Your task to perform on an android device: Go to Yahoo.com Image 0: 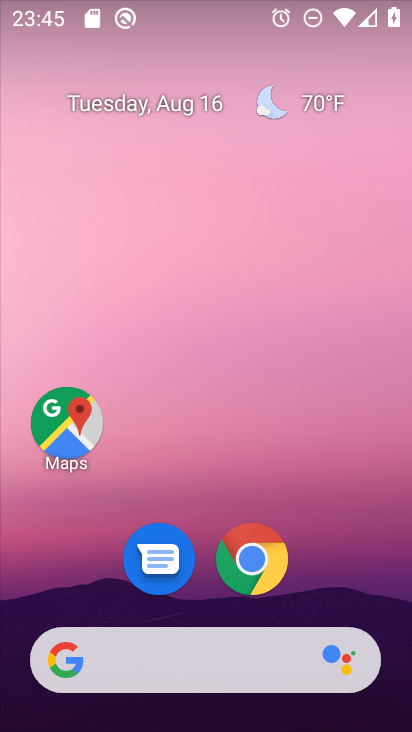
Step 0: click (254, 561)
Your task to perform on an android device: Go to Yahoo.com Image 1: 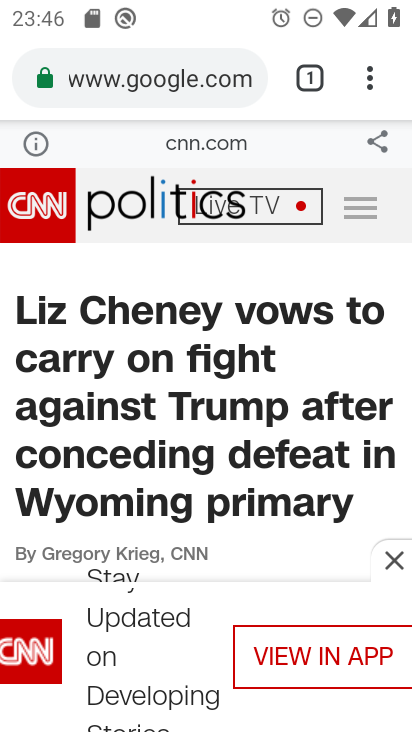
Step 1: click (251, 89)
Your task to perform on an android device: Go to Yahoo.com Image 2: 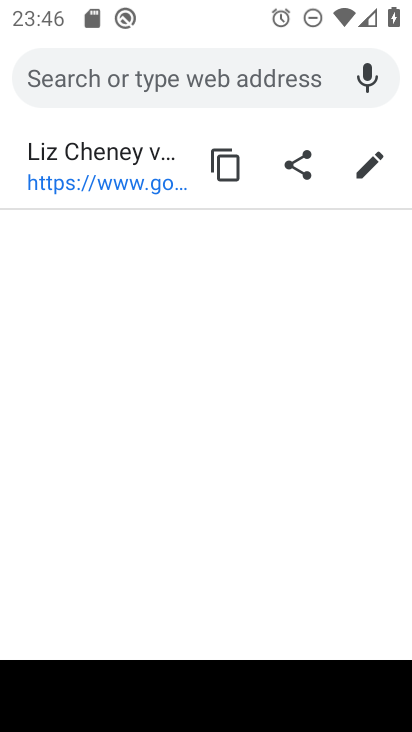
Step 2: type "Yahoo.com"
Your task to perform on an android device: Go to Yahoo.com Image 3: 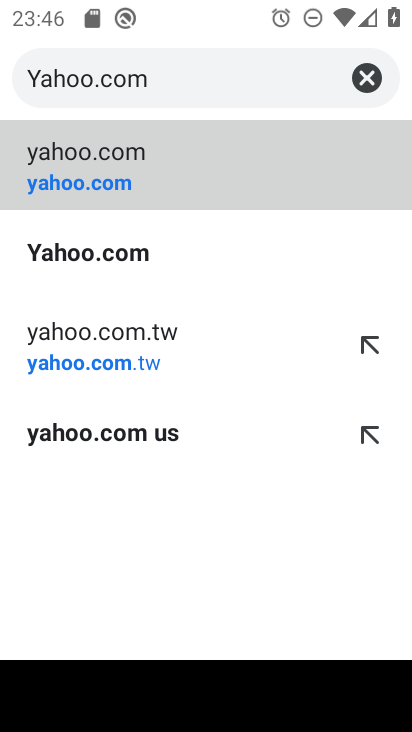
Step 3: click (100, 264)
Your task to perform on an android device: Go to Yahoo.com Image 4: 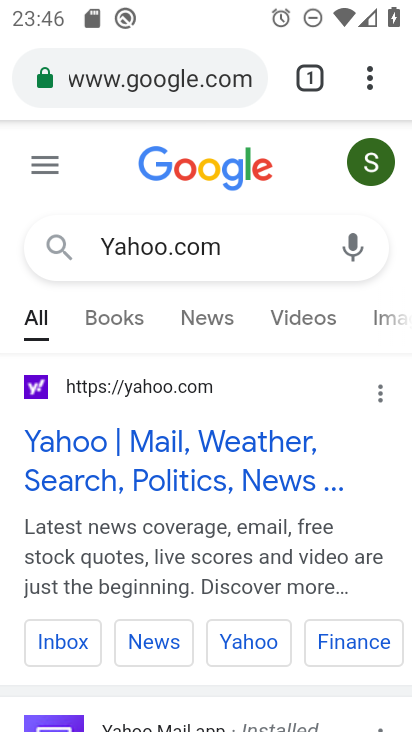
Step 4: click (164, 391)
Your task to perform on an android device: Go to Yahoo.com Image 5: 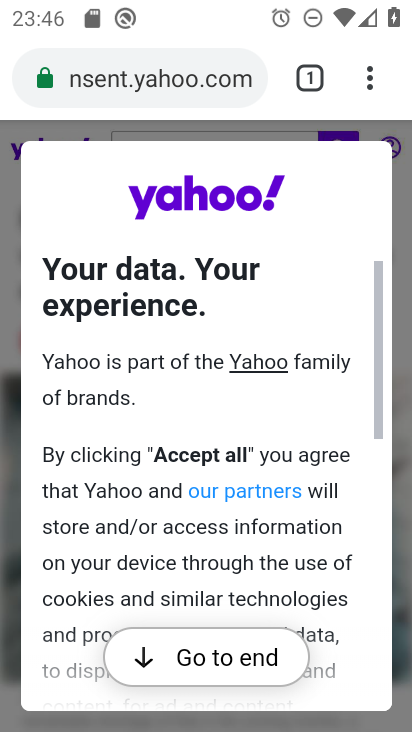
Step 5: click (205, 642)
Your task to perform on an android device: Go to Yahoo.com Image 6: 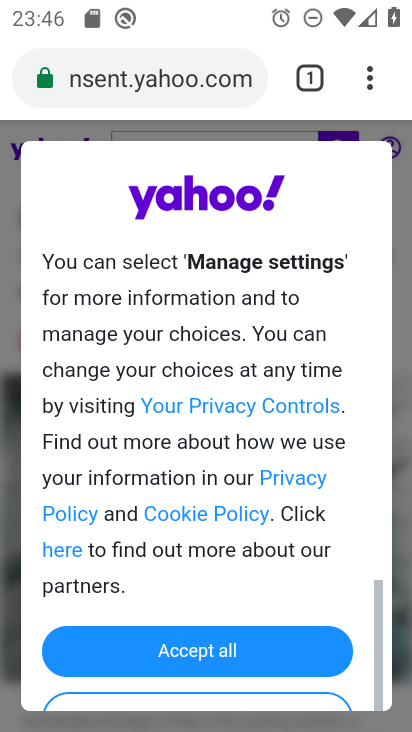
Step 6: click (205, 651)
Your task to perform on an android device: Go to Yahoo.com Image 7: 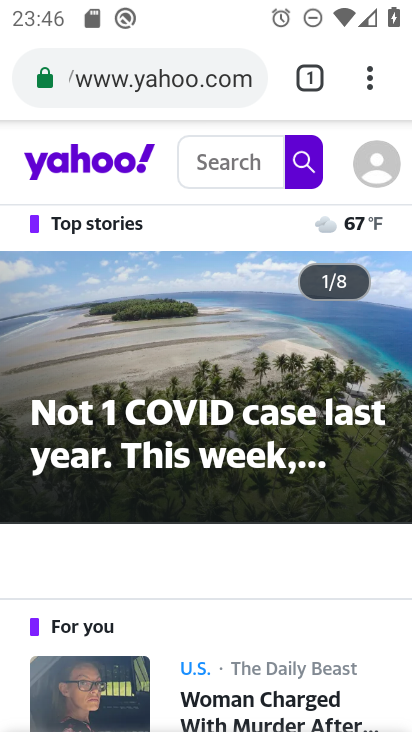
Step 7: task complete